Your task to perform on an android device: change the clock display to show seconds Image 0: 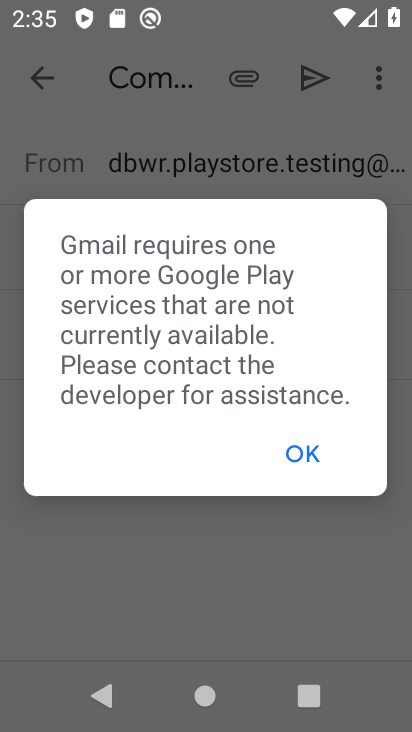
Step 0: press back button
Your task to perform on an android device: change the clock display to show seconds Image 1: 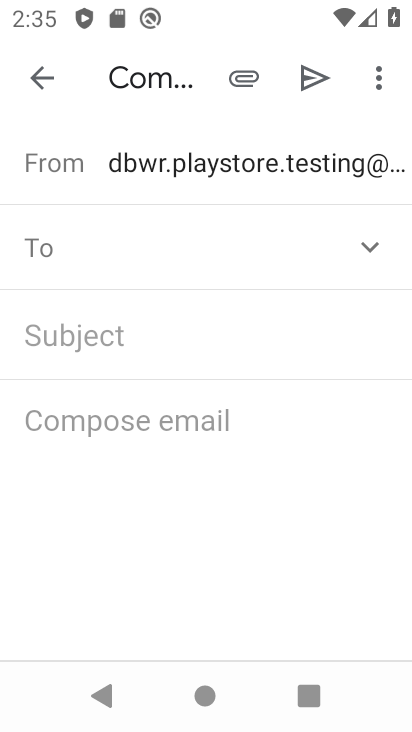
Step 1: press back button
Your task to perform on an android device: change the clock display to show seconds Image 2: 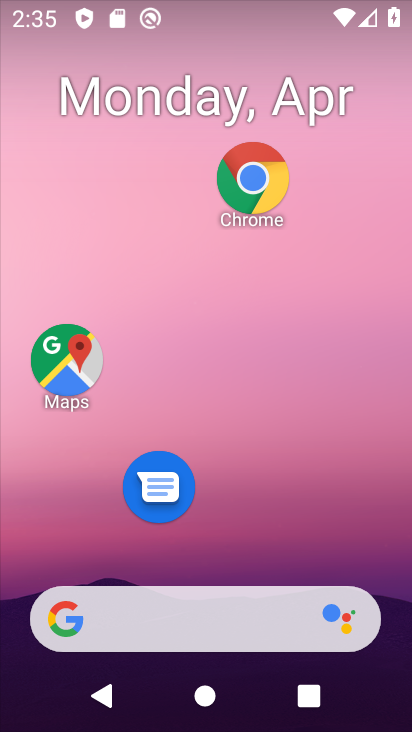
Step 2: drag from (237, 570) to (304, 111)
Your task to perform on an android device: change the clock display to show seconds Image 3: 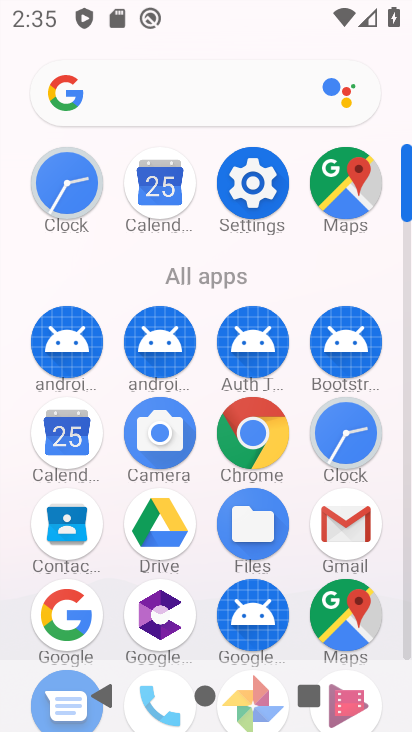
Step 3: click (333, 430)
Your task to perform on an android device: change the clock display to show seconds Image 4: 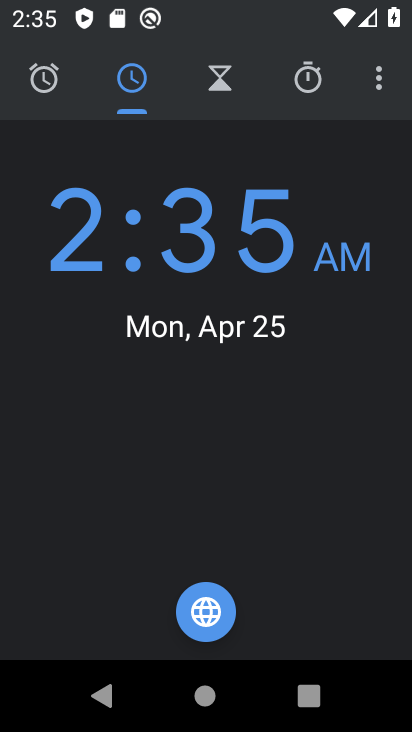
Step 4: click (392, 82)
Your task to perform on an android device: change the clock display to show seconds Image 5: 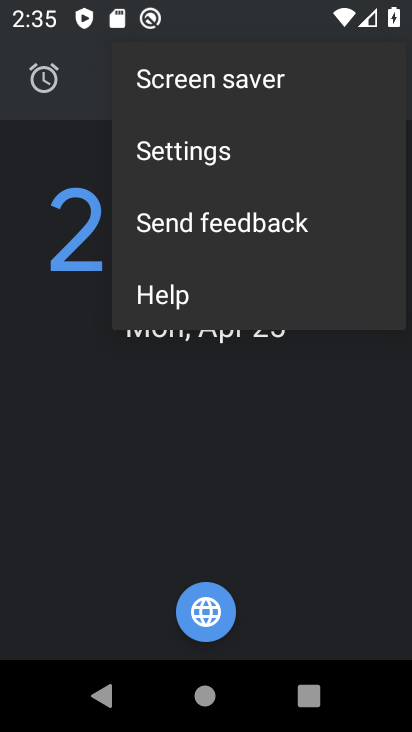
Step 5: click (163, 163)
Your task to perform on an android device: change the clock display to show seconds Image 6: 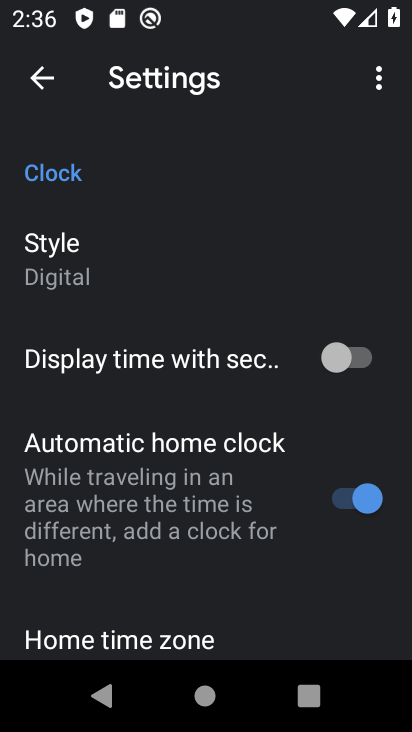
Step 6: click (350, 351)
Your task to perform on an android device: change the clock display to show seconds Image 7: 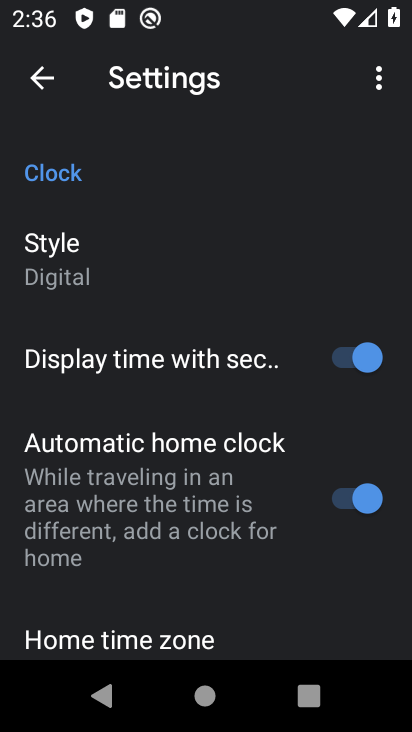
Step 7: task complete